Your task to perform on an android device: Open Wikipedia Image 0: 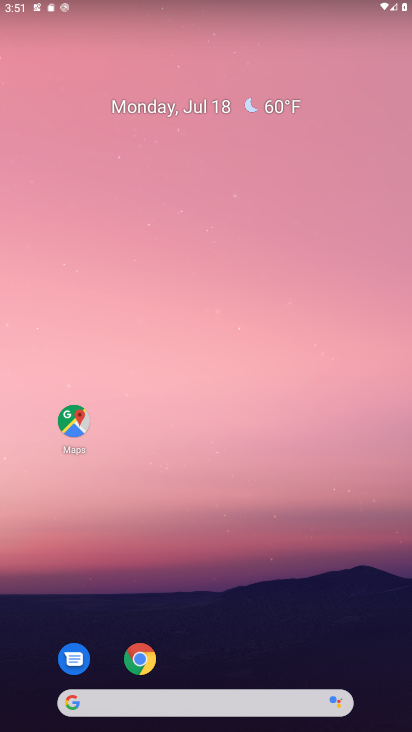
Step 0: drag from (289, 690) to (391, 10)
Your task to perform on an android device: Open Wikipedia Image 1: 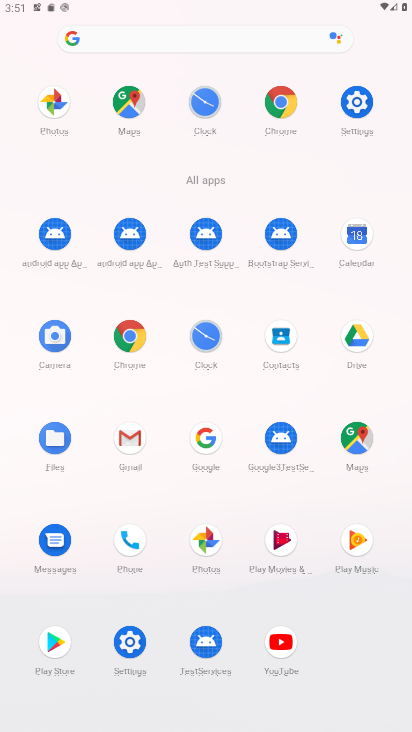
Step 1: click (140, 336)
Your task to perform on an android device: Open Wikipedia Image 2: 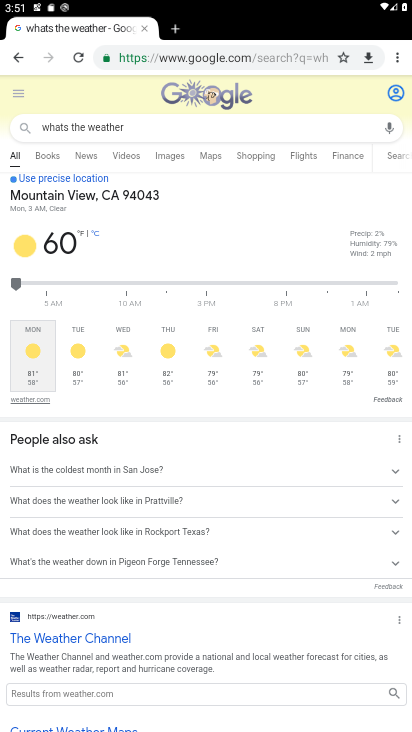
Step 2: click (234, 53)
Your task to perform on an android device: Open Wikipedia Image 3: 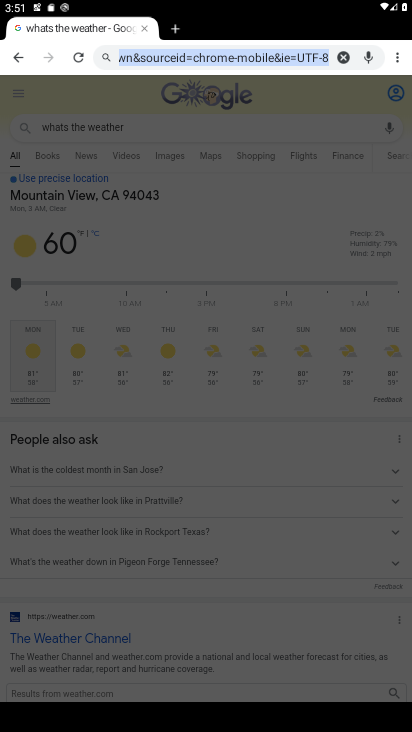
Step 3: type "wikipedia"
Your task to perform on an android device: Open Wikipedia Image 4: 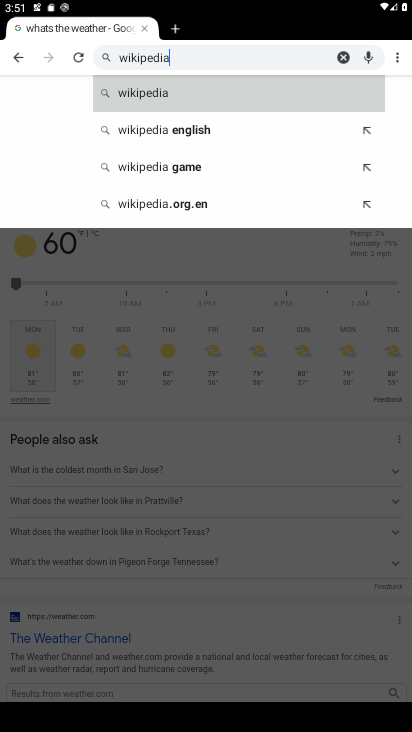
Step 4: click (188, 86)
Your task to perform on an android device: Open Wikipedia Image 5: 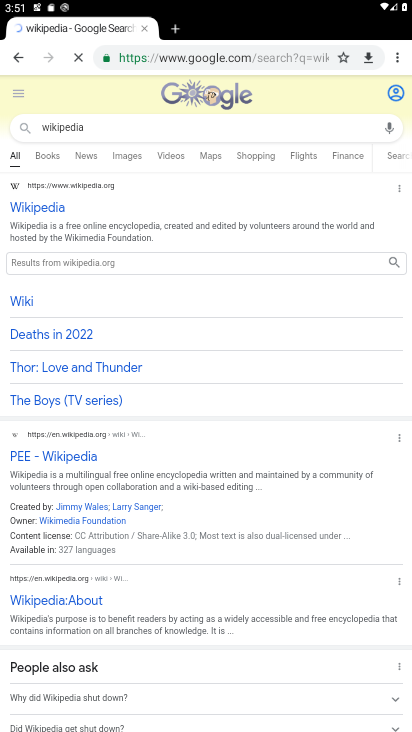
Step 5: task complete